Your task to perform on an android device: Do I have any events tomorrow? Image 0: 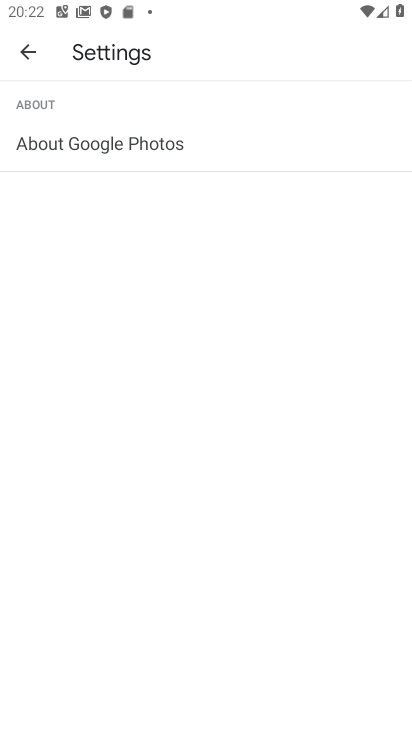
Step 0: task complete